Your task to perform on an android device: change notification settings in the gmail app Image 0: 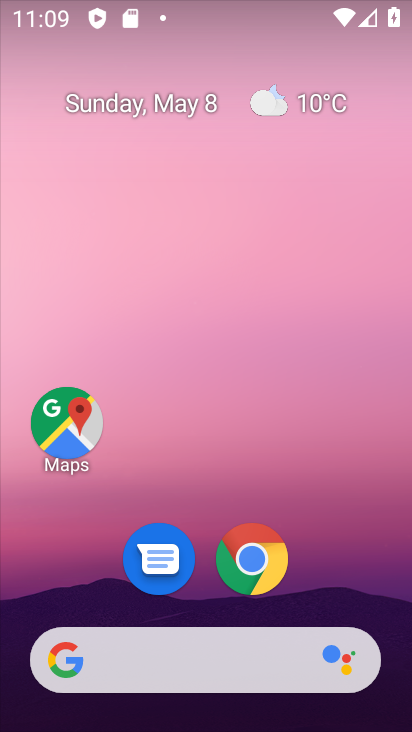
Step 0: drag from (215, 582) to (338, 5)
Your task to perform on an android device: change notification settings in the gmail app Image 1: 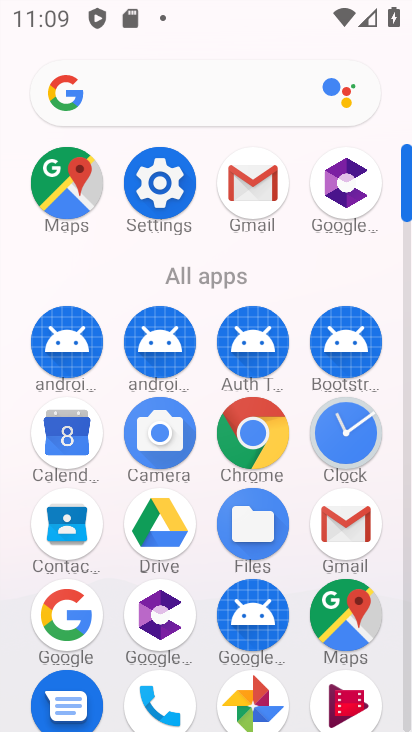
Step 1: click (357, 529)
Your task to perform on an android device: change notification settings in the gmail app Image 2: 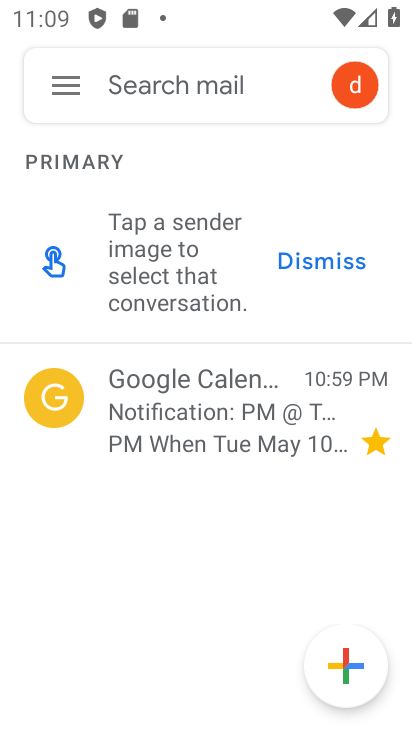
Step 2: click (67, 95)
Your task to perform on an android device: change notification settings in the gmail app Image 3: 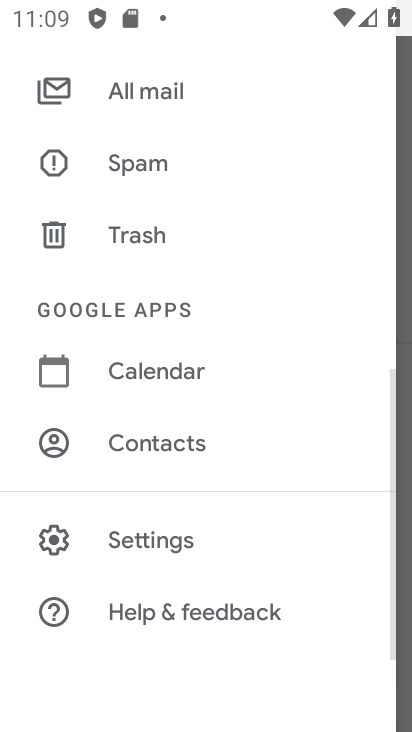
Step 3: click (144, 538)
Your task to perform on an android device: change notification settings in the gmail app Image 4: 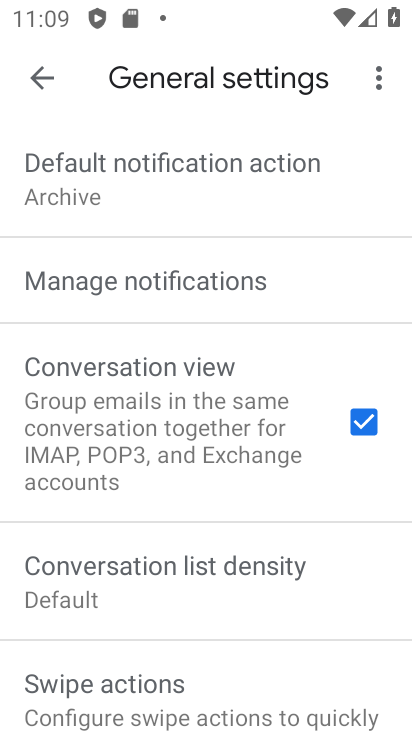
Step 4: click (190, 299)
Your task to perform on an android device: change notification settings in the gmail app Image 5: 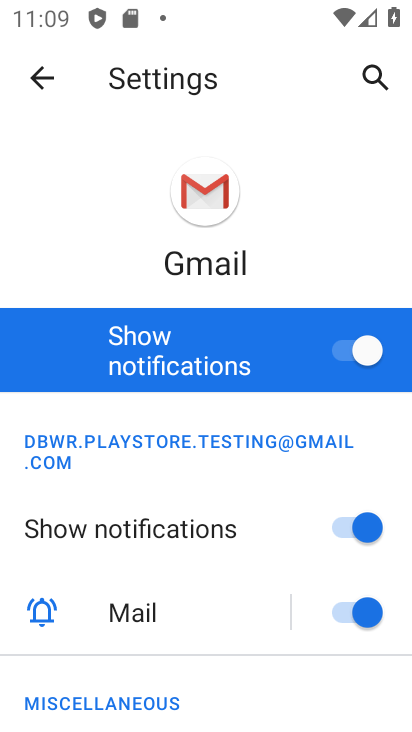
Step 5: click (341, 363)
Your task to perform on an android device: change notification settings in the gmail app Image 6: 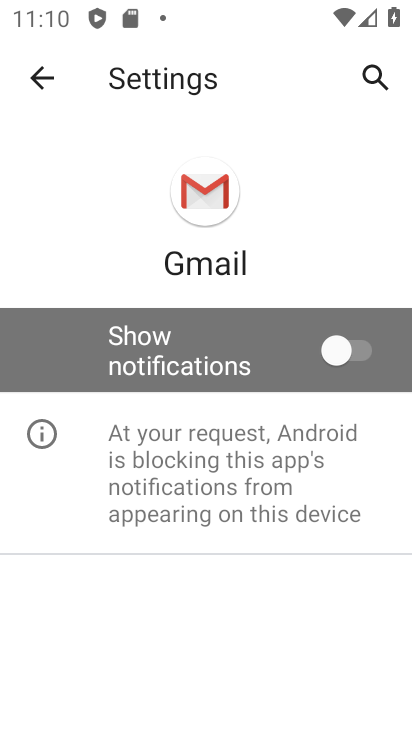
Step 6: task complete